Your task to perform on an android device: Go to network settings Image 0: 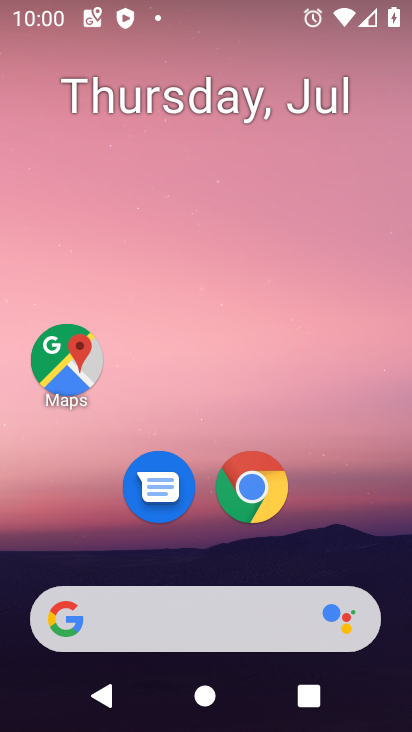
Step 0: drag from (219, 644) to (287, 190)
Your task to perform on an android device: Go to network settings Image 1: 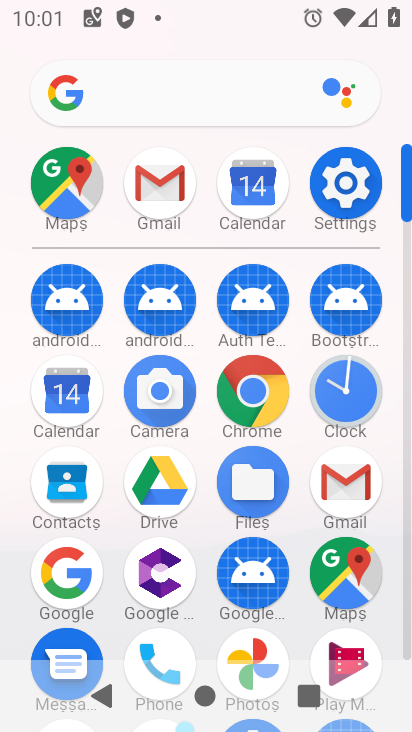
Step 1: click (343, 193)
Your task to perform on an android device: Go to network settings Image 2: 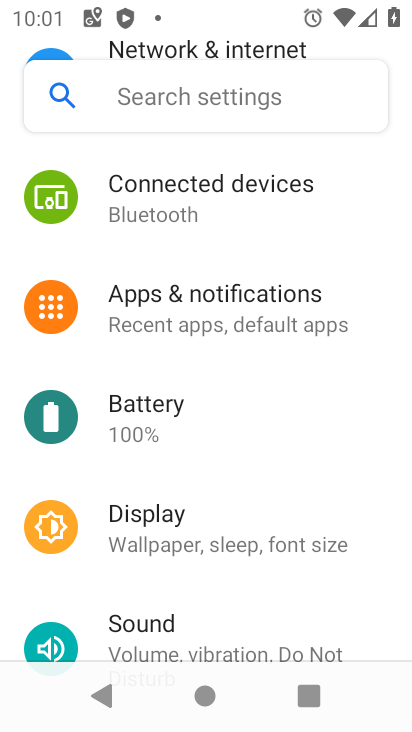
Step 2: drag from (275, 277) to (254, 635)
Your task to perform on an android device: Go to network settings Image 3: 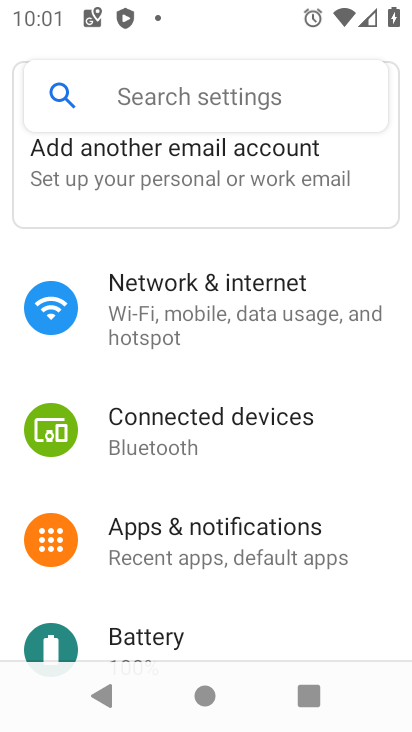
Step 3: click (274, 322)
Your task to perform on an android device: Go to network settings Image 4: 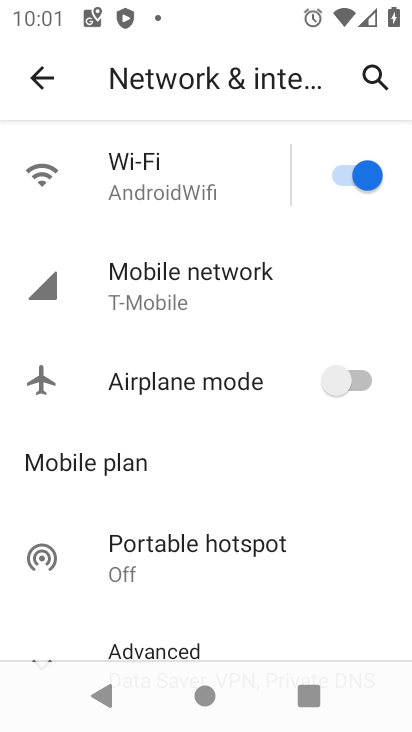
Step 4: click (242, 294)
Your task to perform on an android device: Go to network settings Image 5: 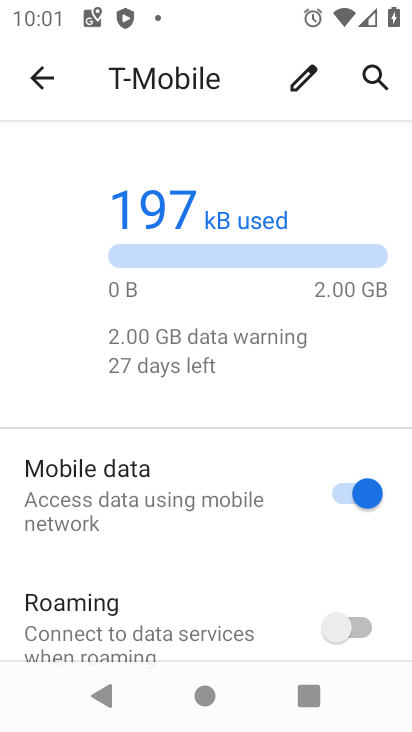
Step 5: task complete